Your task to perform on an android device: Open settings on Google Maps Image 0: 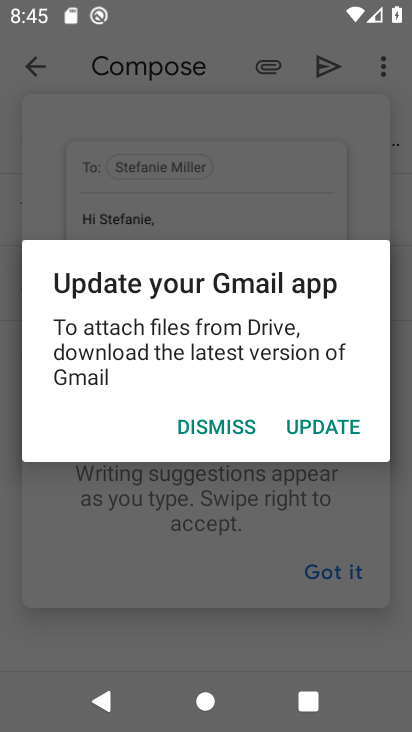
Step 0: press home button
Your task to perform on an android device: Open settings on Google Maps Image 1: 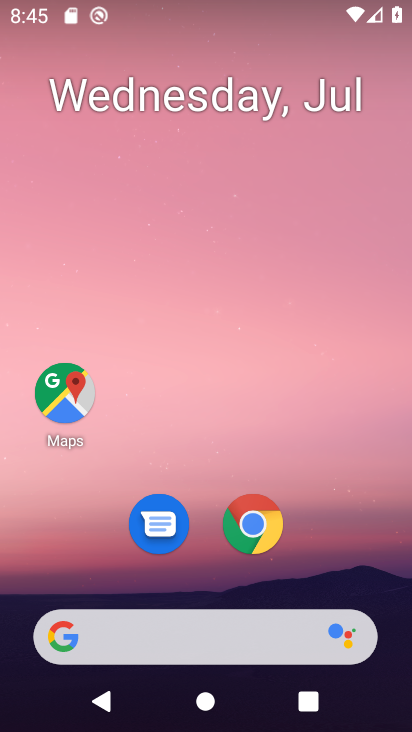
Step 1: click (62, 400)
Your task to perform on an android device: Open settings on Google Maps Image 2: 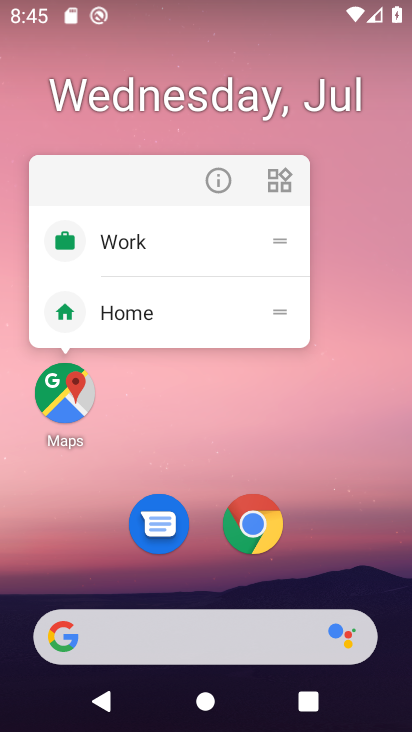
Step 2: click (61, 395)
Your task to perform on an android device: Open settings on Google Maps Image 3: 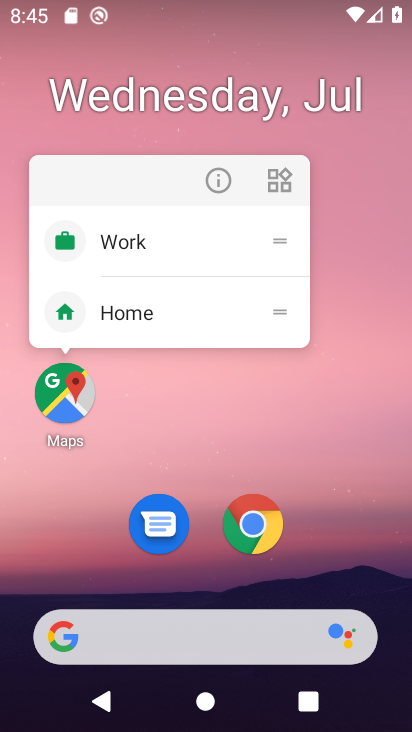
Step 3: click (62, 397)
Your task to perform on an android device: Open settings on Google Maps Image 4: 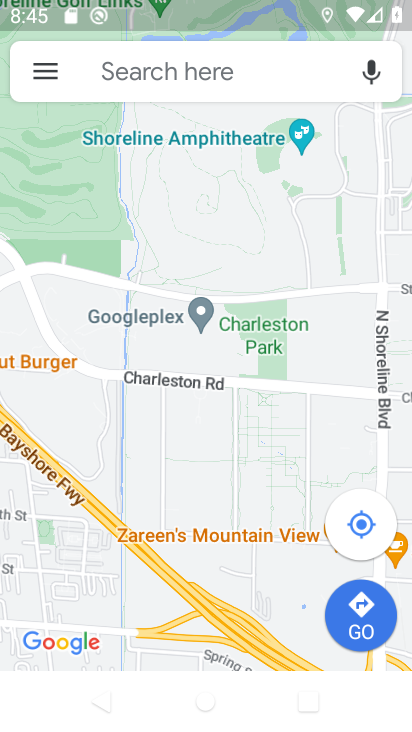
Step 4: click (46, 71)
Your task to perform on an android device: Open settings on Google Maps Image 5: 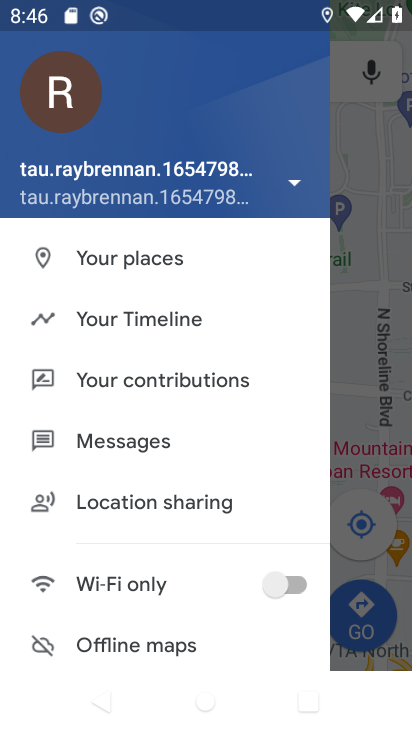
Step 5: drag from (175, 619) to (325, 116)
Your task to perform on an android device: Open settings on Google Maps Image 6: 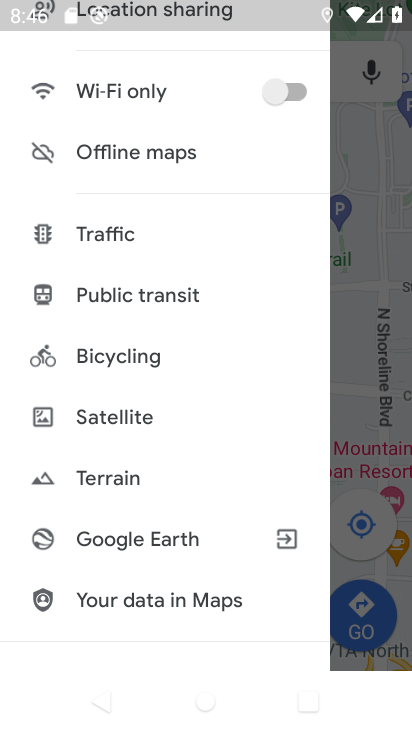
Step 6: drag from (215, 566) to (341, 37)
Your task to perform on an android device: Open settings on Google Maps Image 7: 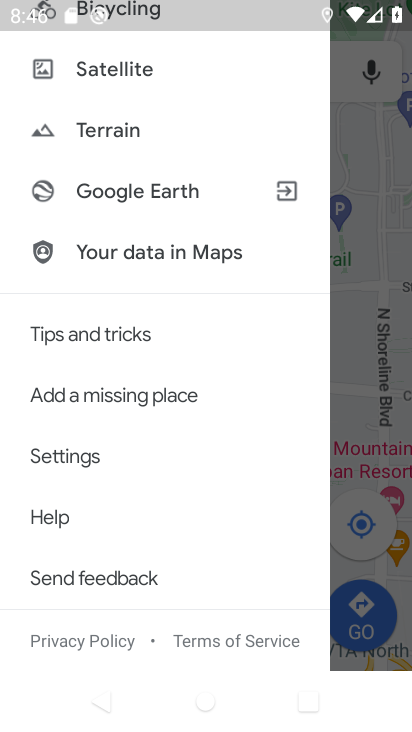
Step 7: click (90, 463)
Your task to perform on an android device: Open settings on Google Maps Image 8: 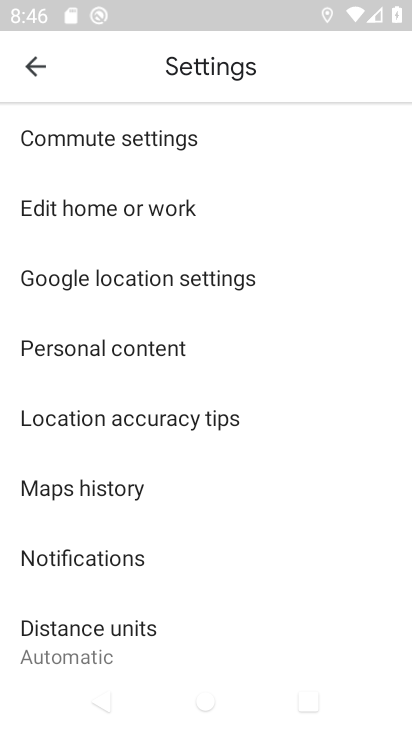
Step 8: task complete